Your task to perform on an android device: See recent photos Image 0: 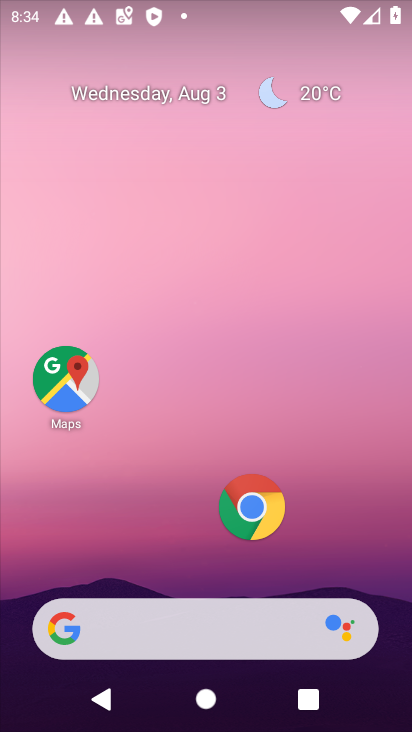
Step 0: drag from (179, 488) to (179, 119)
Your task to perform on an android device: See recent photos Image 1: 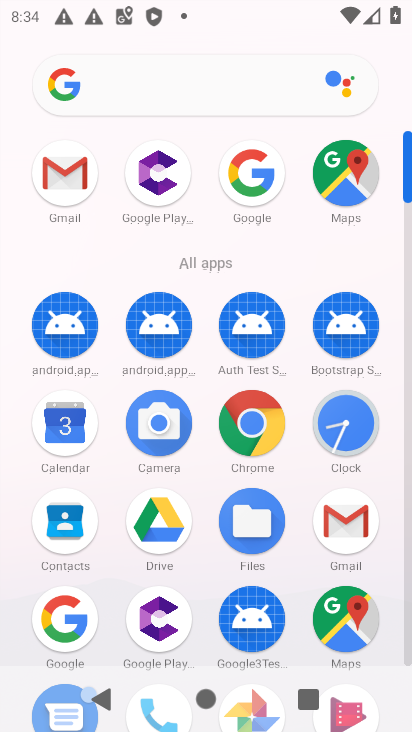
Step 1: drag from (249, 278) to (261, 152)
Your task to perform on an android device: See recent photos Image 2: 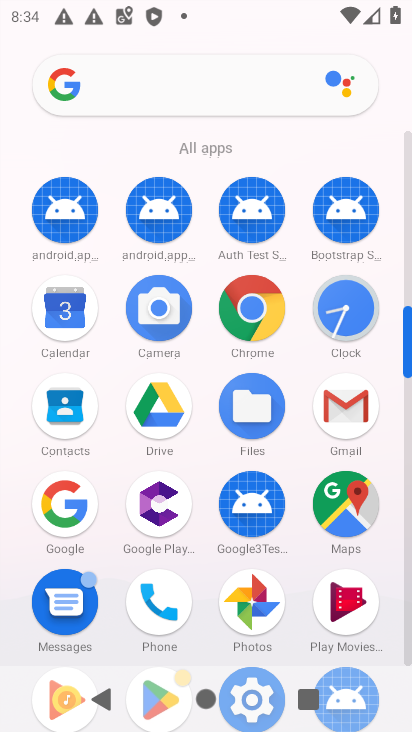
Step 2: click (243, 605)
Your task to perform on an android device: See recent photos Image 3: 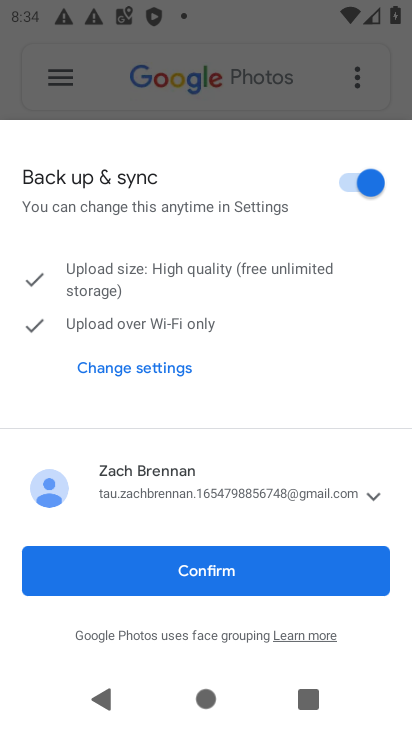
Step 3: click (188, 550)
Your task to perform on an android device: See recent photos Image 4: 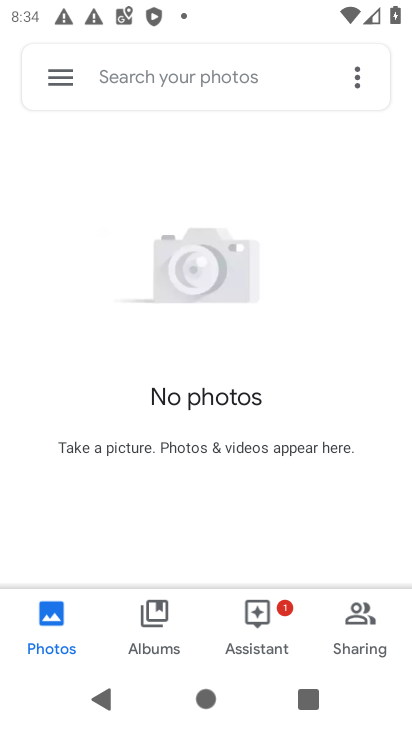
Step 4: task complete